Your task to perform on an android device: toggle priority inbox in the gmail app Image 0: 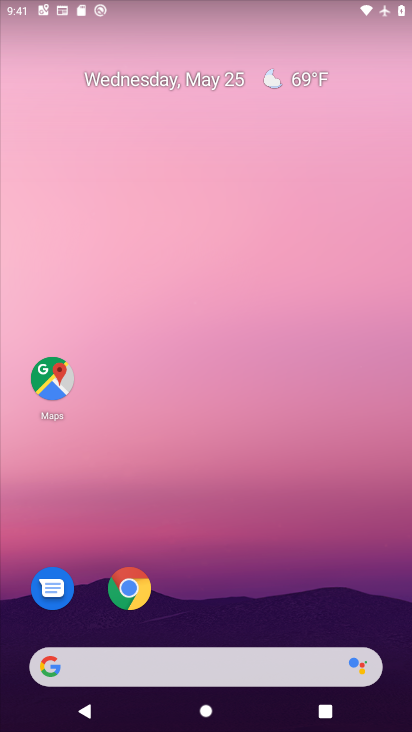
Step 0: drag from (359, 613) to (356, 215)
Your task to perform on an android device: toggle priority inbox in the gmail app Image 1: 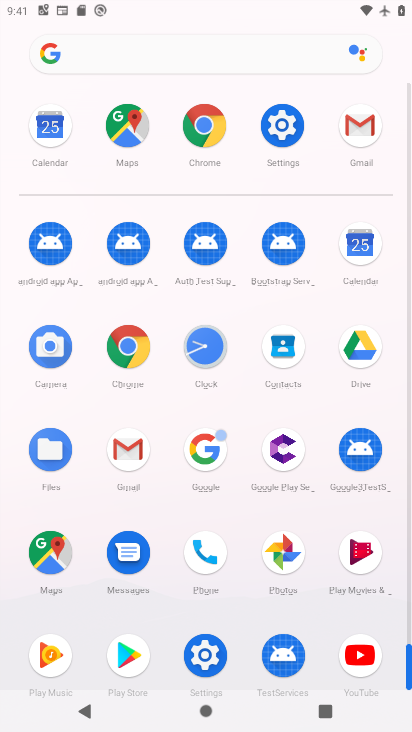
Step 1: click (375, 137)
Your task to perform on an android device: toggle priority inbox in the gmail app Image 2: 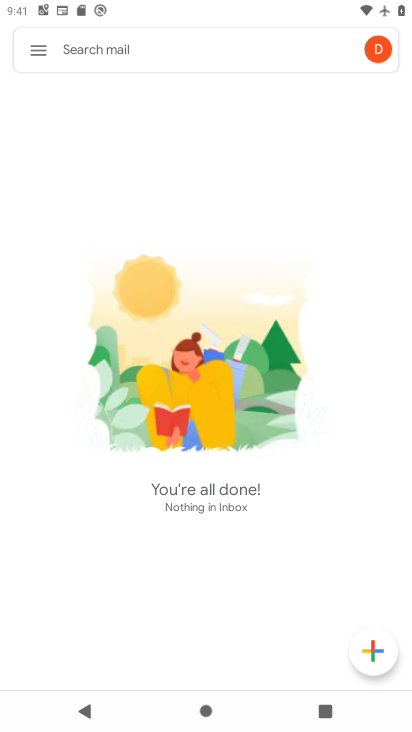
Step 2: click (38, 53)
Your task to perform on an android device: toggle priority inbox in the gmail app Image 3: 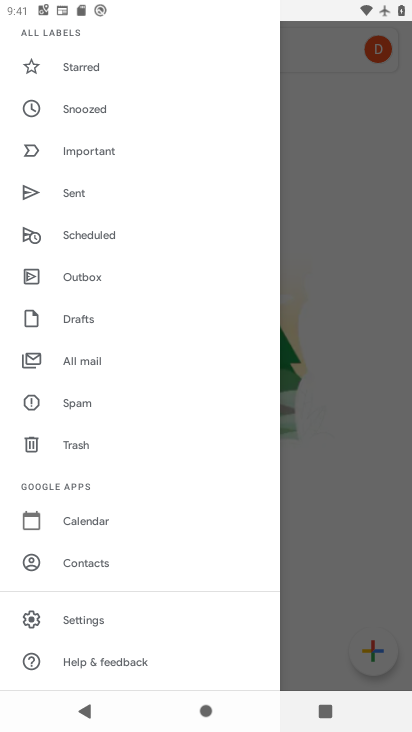
Step 3: click (126, 621)
Your task to perform on an android device: toggle priority inbox in the gmail app Image 4: 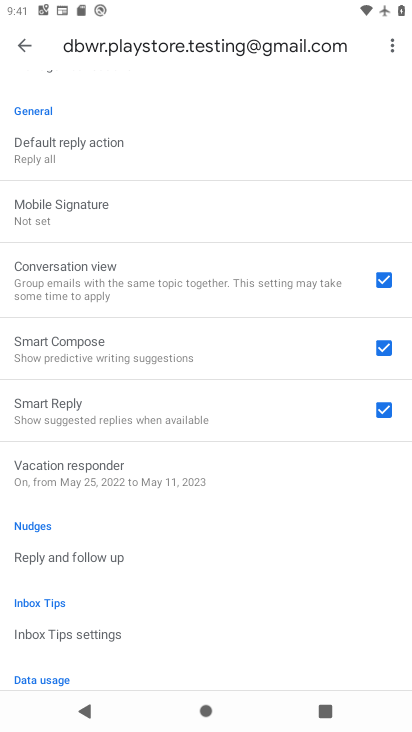
Step 4: drag from (299, 583) to (341, 446)
Your task to perform on an android device: toggle priority inbox in the gmail app Image 5: 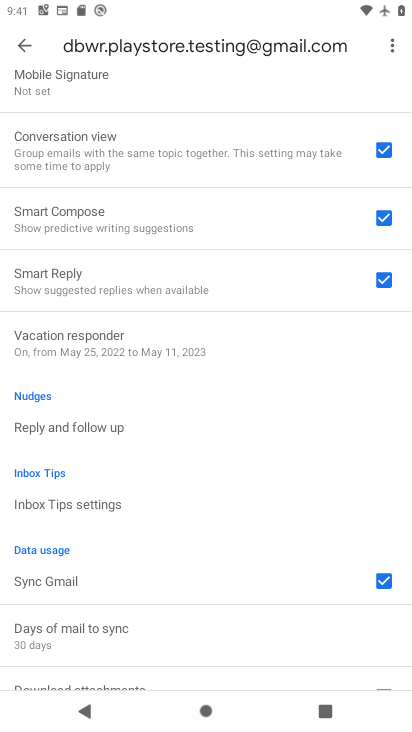
Step 5: drag from (296, 583) to (298, 458)
Your task to perform on an android device: toggle priority inbox in the gmail app Image 6: 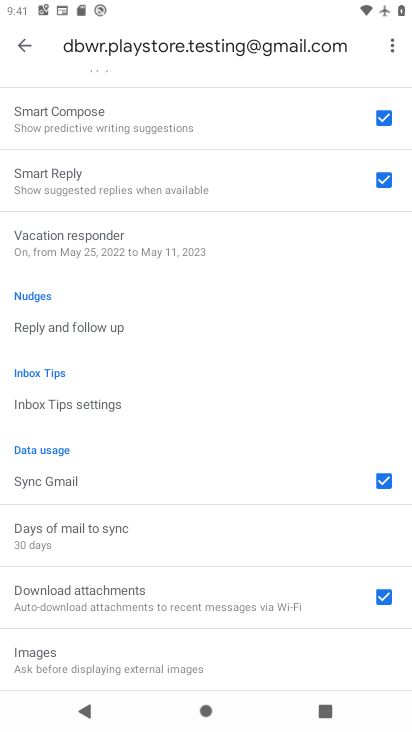
Step 6: drag from (306, 588) to (321, 432)
Your task to perform on an android device: toggle priority inbox in the gmail app Image 7: 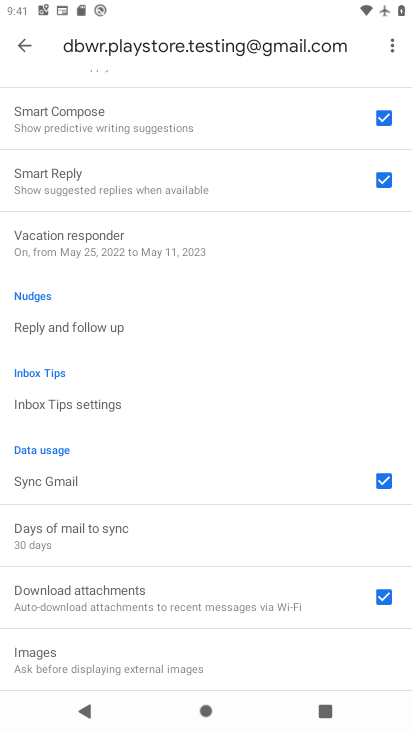
Step 7: drag from (300, 270) to (293, 399)
Your task to perform on an android device: toggle priority inbox in the gmail app Image 8: 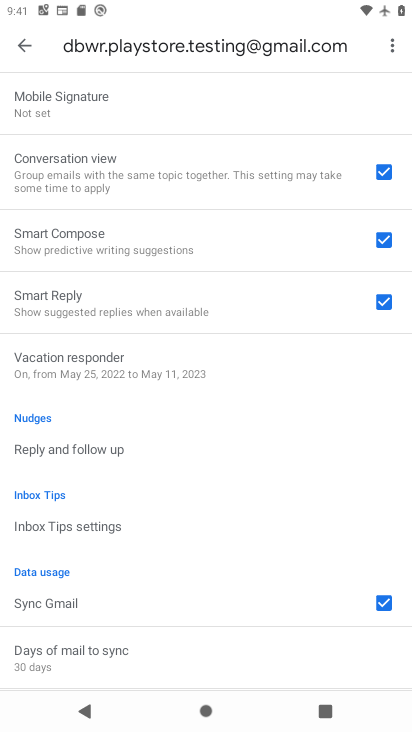
Step 8: drag from (281, 240) to (271, 392)
Your task to perform on an android device: toggle priority inbox in the gmail app Image 9: 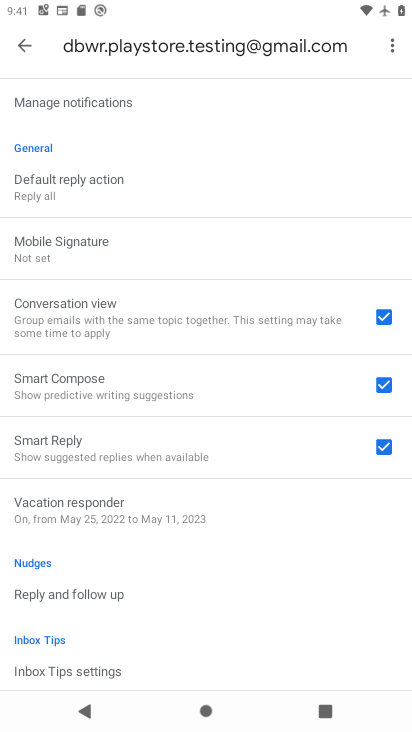
Step 9: drag from (257, 224) to (249, 351)
Your task to perform on an android device: toggle priority inbox in the gmail app Image 10: 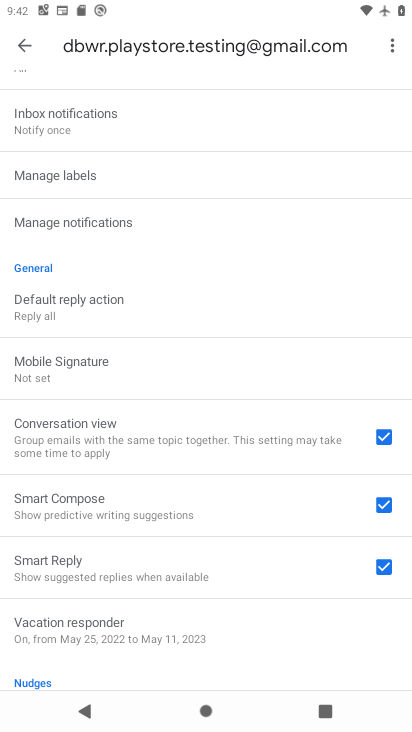
Step 10: drag from (243, 224) to (239, 343)
Your task to perform on an android device: toggle priority inbox in the gmail app Image 11: 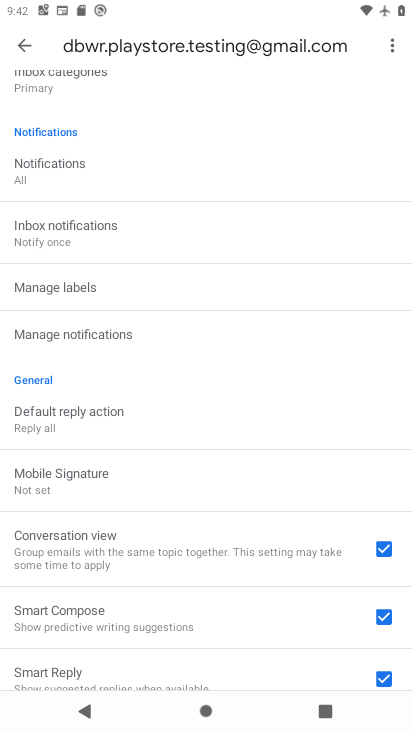
Step 11: drag from (221, 184) to (207, 315)
Your task to perform on an android device: toggle priority inbox in the gmail app Image 12: 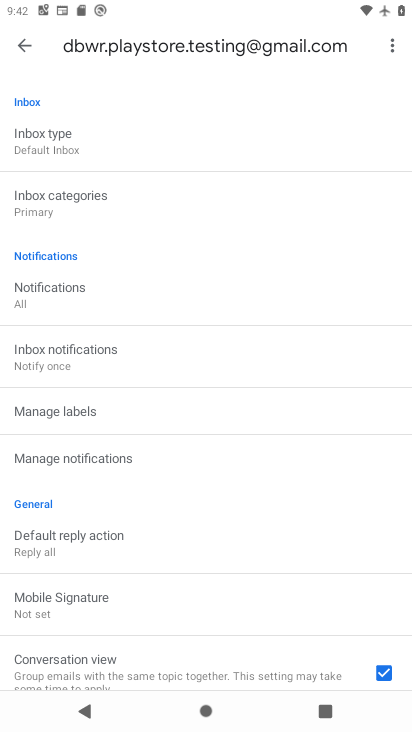
Step 12: drag from (182, 158) to (172, 308)
Your task to perform on an android device: toggle priority inbox in the gmail app Image 13: 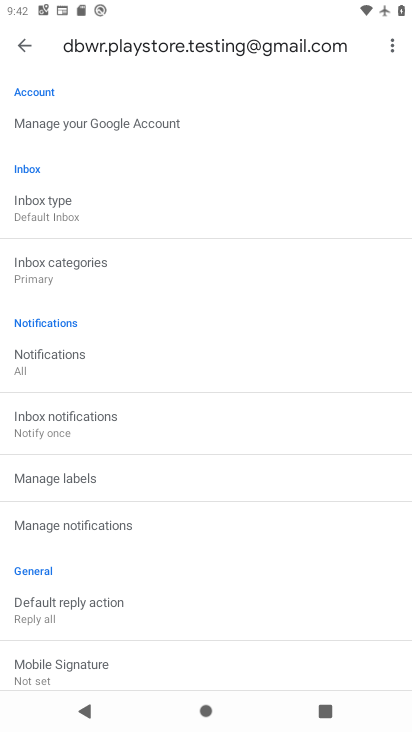
Step 13: click (57, 215)
Your task to perform on an android device: toggle priority inbox in the gmail app Image 14: 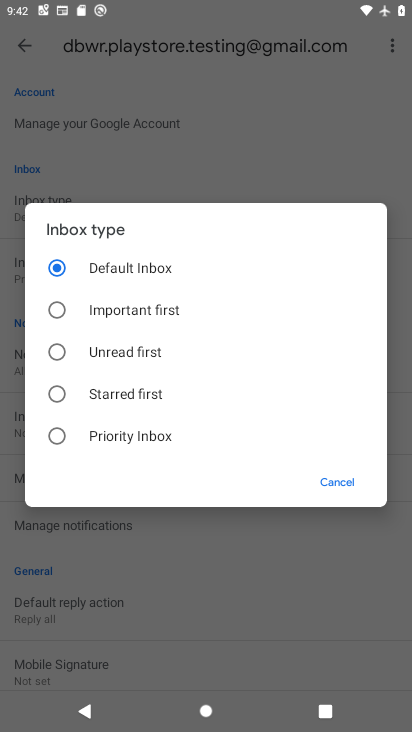
Step 14: click (138, 445)
Your task to perform on an android device: toggle priority inbox in the gmail app Image 15: 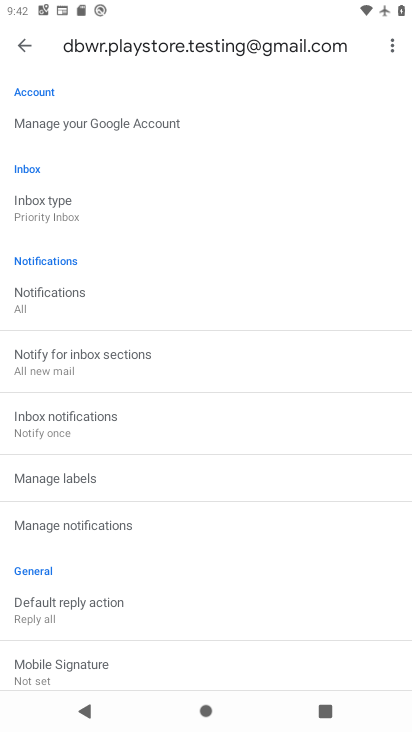
Step 15: task complete